Your task to perform on an android device: Open privacy settings Image 0: 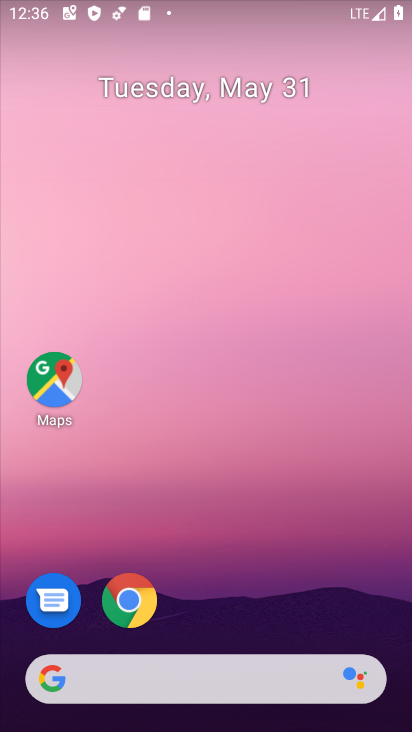
Step 0: drag from (205, 723) to (204, 26)
Your task to perform on an android device: Open privacy settings Image 1: 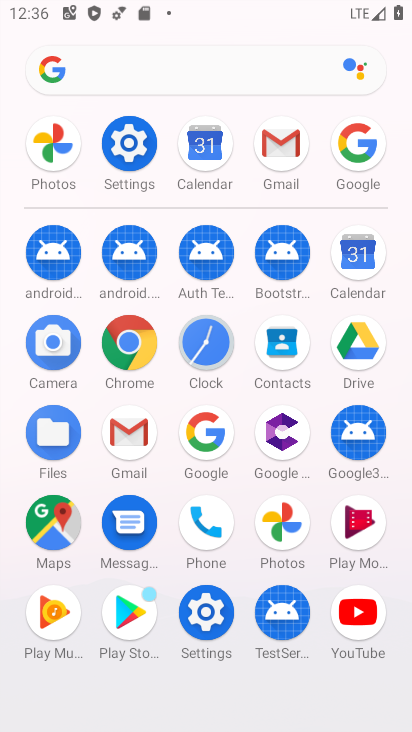
Step 1: click (129, 150)
Your task to perform on an android device: Open privacy settings Image 2: 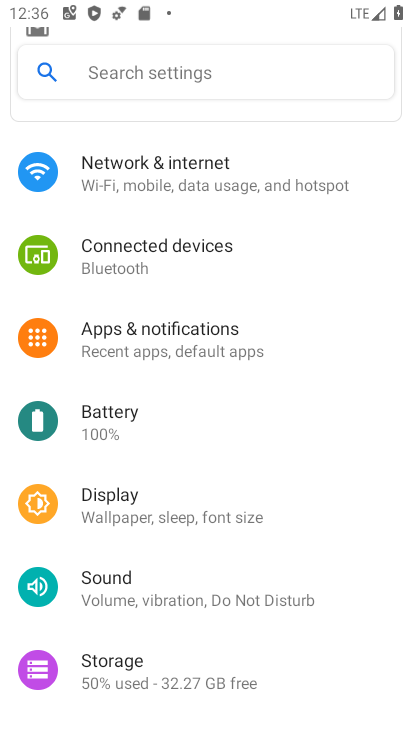
Step 2: drag from (148, 664) to (143, 616)
Your task to perform on an android device: Open privacy settings Image 3: 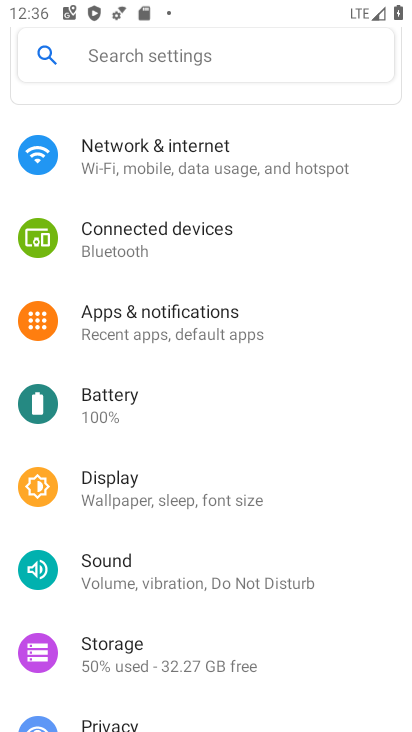
Step 3: drag from (135, 570) to (122, 410)
Your task to perform on an android device: Open privacy settings Image 4: 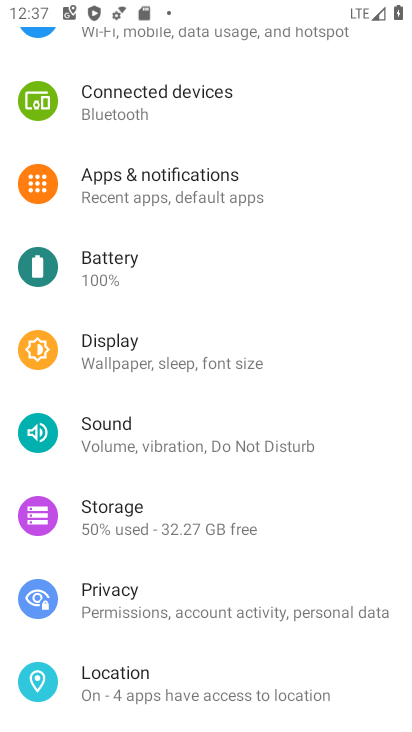
Step 4: drag from (120, 321) to (120, 276)
Your task to perform on an android device: Open privacy settings Image 5: 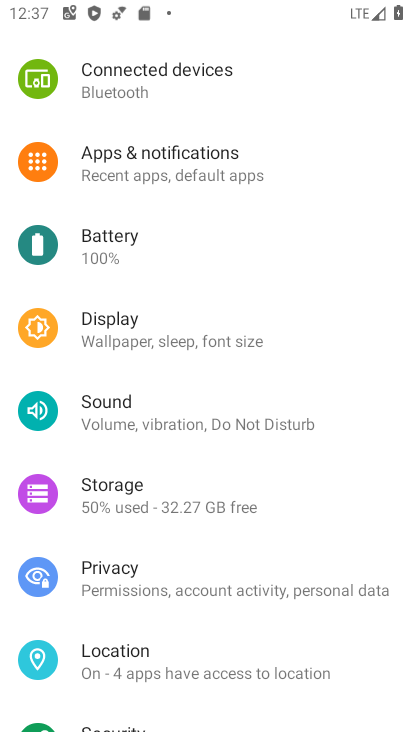
Step 5: click (117, 572)
Your task to perform on an android device: Open privacy settings Image 6: 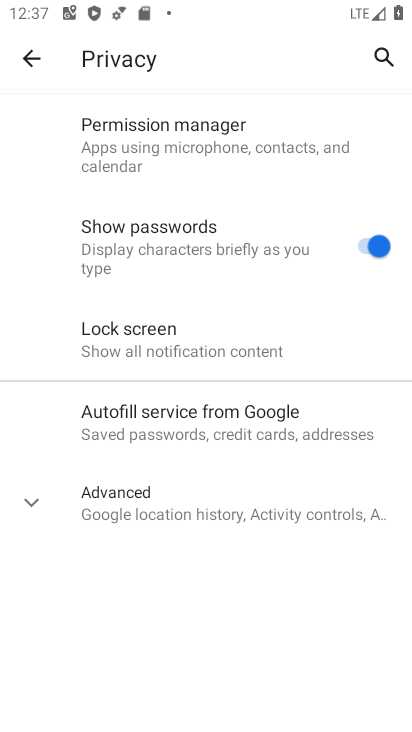
Step 6: task complete